Your task to perform on an android device: change the upload size in google photos Image 0: 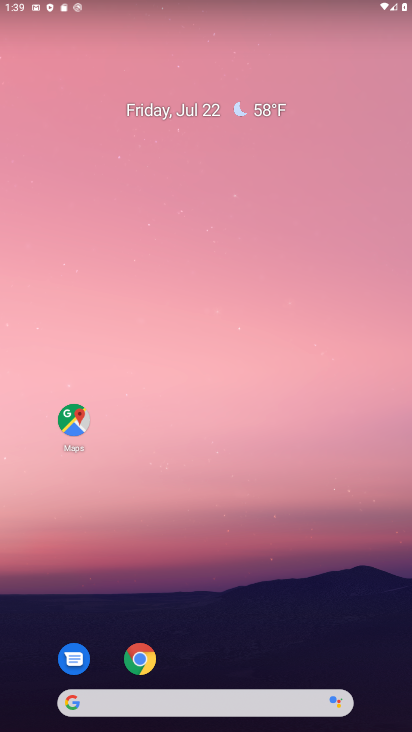
Step 0: drag from (214, 671) to (166, 174)
Your task to perform on an android device: change the upload size in google photos Image 1: 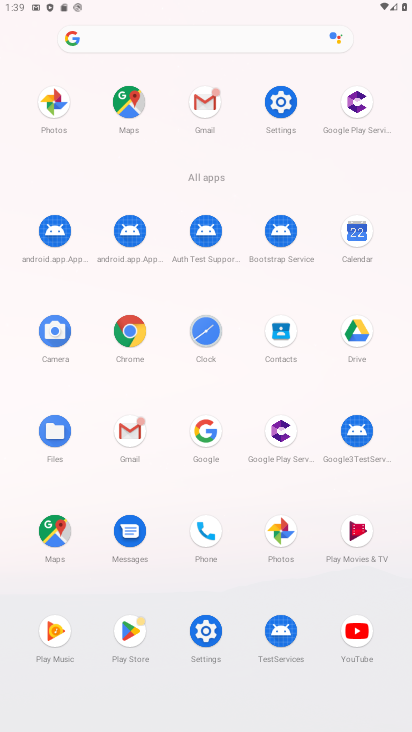
Step 1: click (276, 531)
Your task to perform on an android device: change the upload size in google photos Image 2: 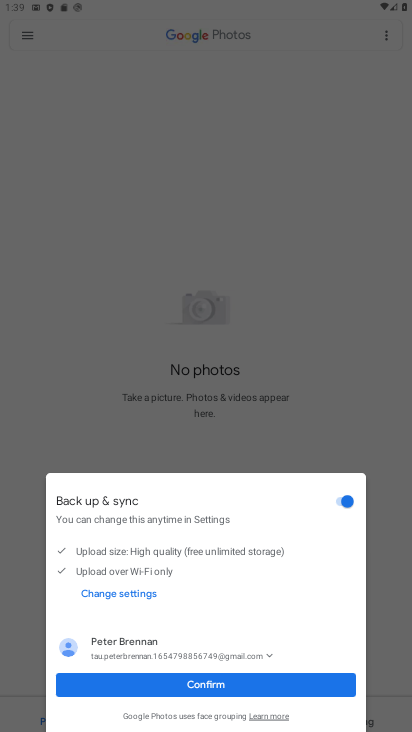
Step 2: click (154, 692)
Your task to perform on an android device: change the upload size in google photos Image 3: 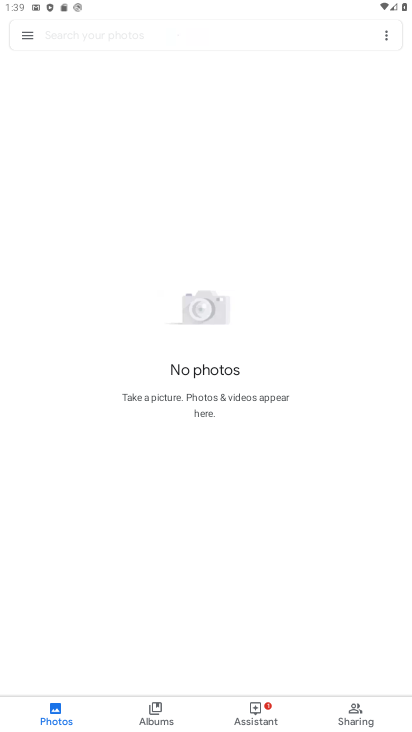
Step 3: click (31, 38)
Your task to perform on an android device: change the upload size in google photos Image 4: 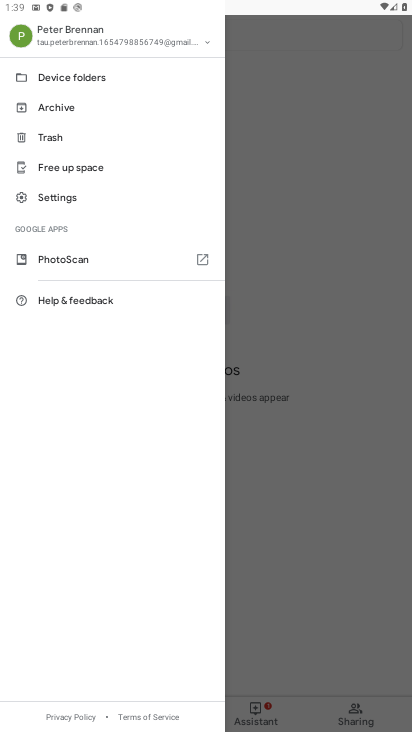
Step 4: click (62, 201)
Your task to perform on an android device: change the upload size in google photos Image 5: 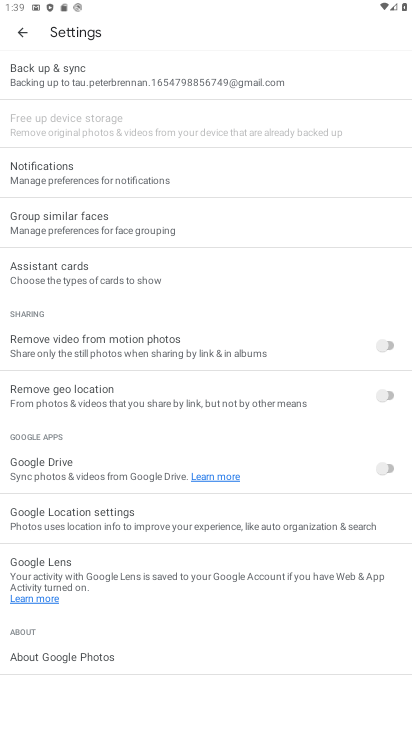
Step 5: click (71, 180)
Your task to perform on an android device: change the upload size in google photos Image 6: 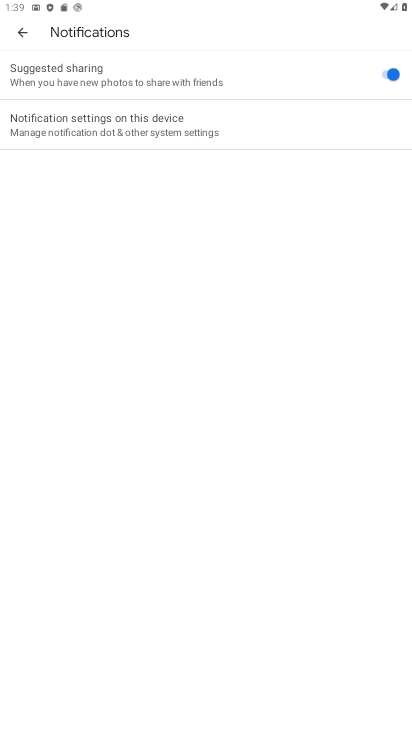
Step 6: click (15, 41)
Your task to perform on an android device: change the upload size in google photos Image 7: 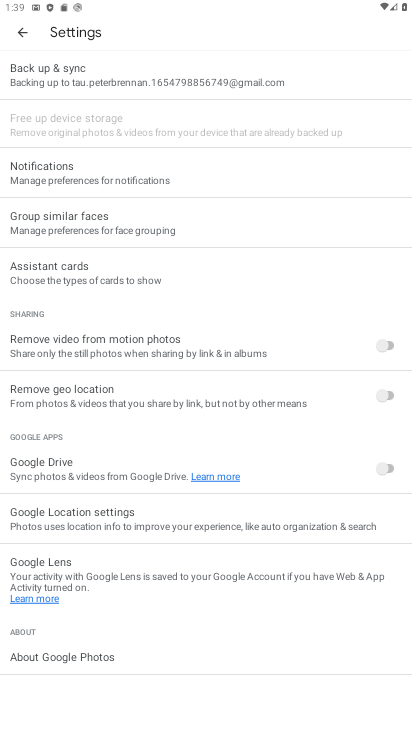
Step 7: click (95, 81)
Your task to perform on an android device: change the upload size in google photos Image 8: 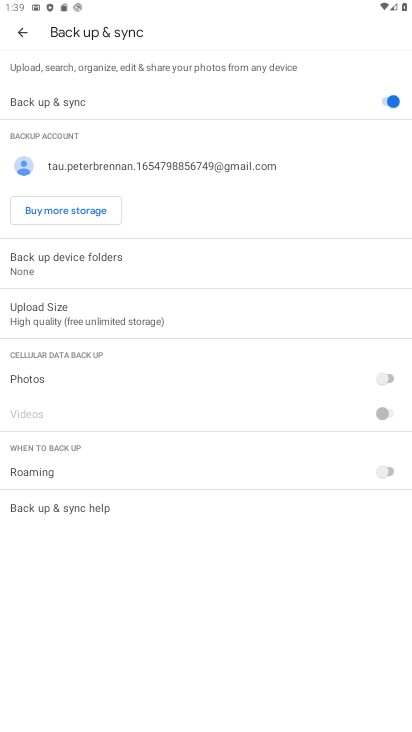
Step 8: click (89, 312)
Your task to perform on an android device: change the upload size in google photos Image 9: 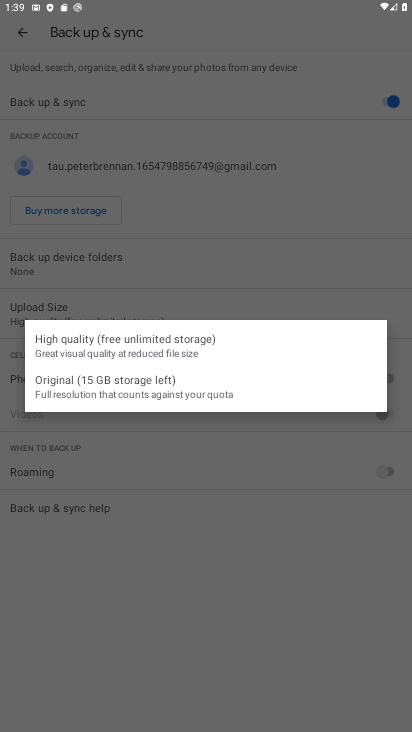
Step 9: click (110, 372)
Your task to perform on an android device: change the upload size in google photos Image 10: 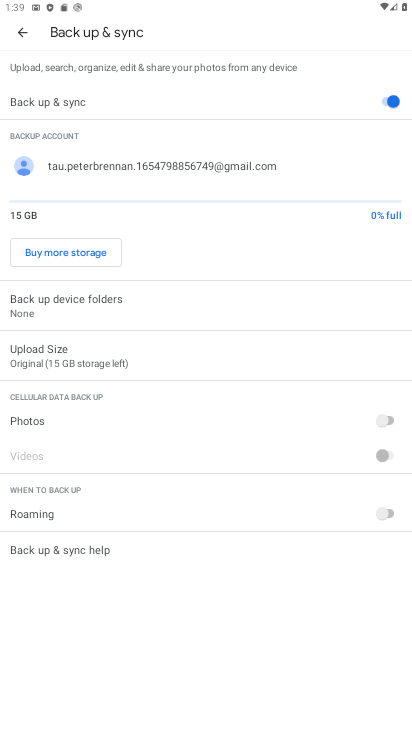
Step 10: task complete